Your task to perform on an android device: turn off location history Image 0: 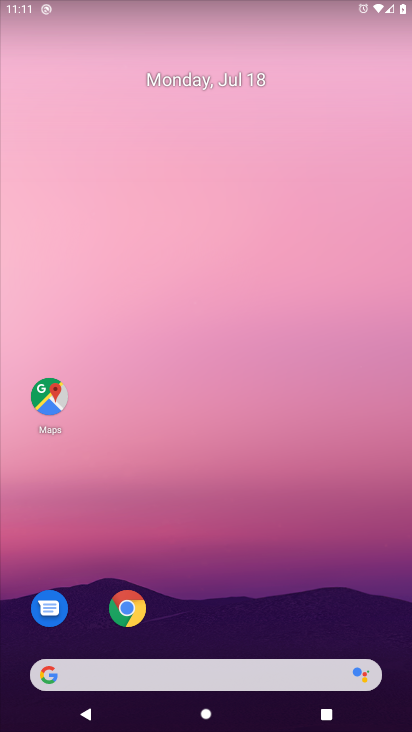
Step 0: drag from (131, 409) to (217, 170)
Your task to perform on an android device: turn off location history Image 1: 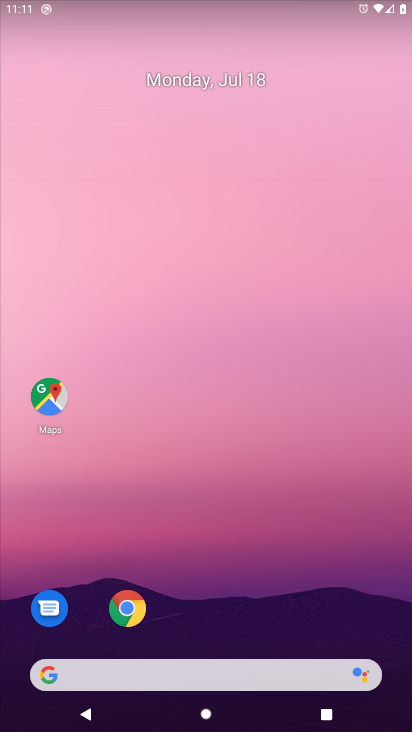
Step 1: drag from (5, 688) to (329, 1)
Your task to perform on an android device: turn off location history Image 2: 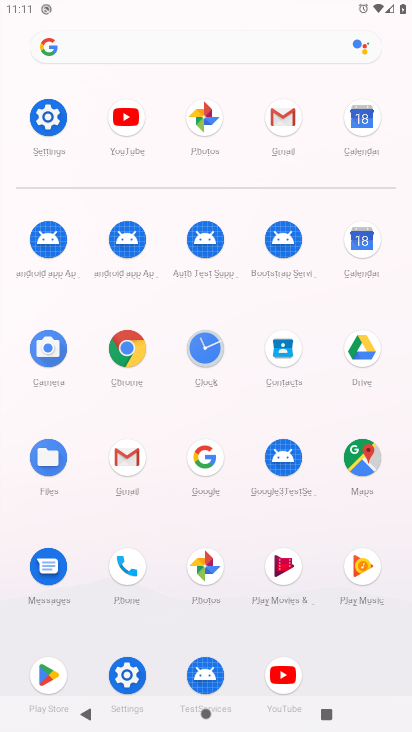
Step 2: click (131, 683)
Your task to perform on an android device: turn off location history Image 3: 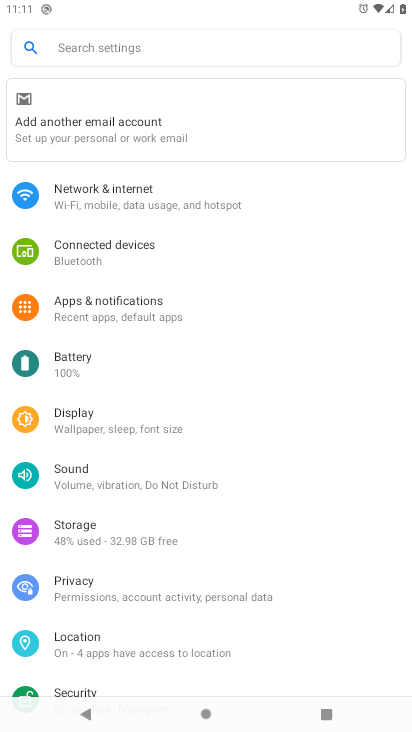
Step 3: click (111, 641)
Your task to perform on an android device: turn off location history Image 4: 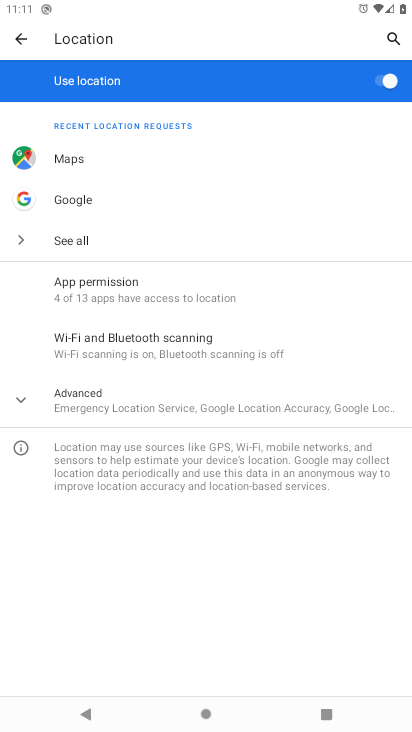
Step 4: click (106, 403)
Your task to perform on an android device: turn off location history Image 5: 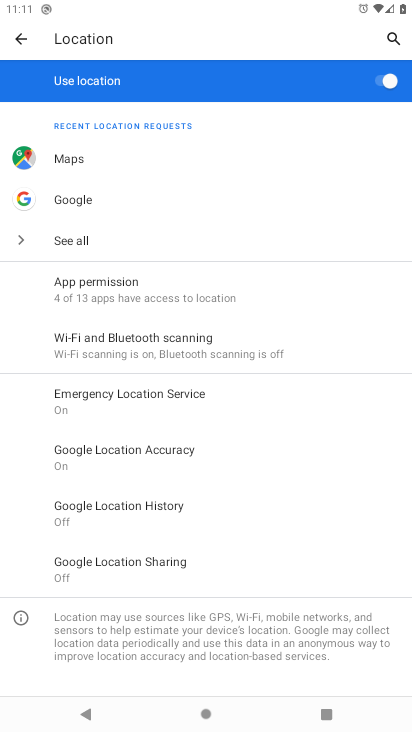
Step 5: task complete